Your task to perform on an android device: turn on location history Image 0: 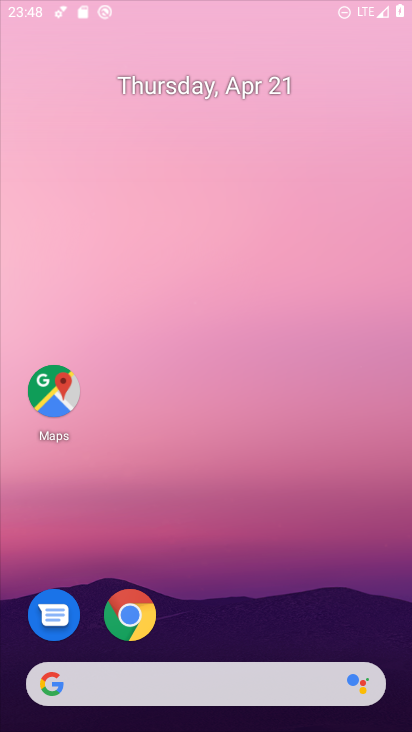
Step 0: click (251, 79)
Your task to perform on an android device: turn on location history Image 1: 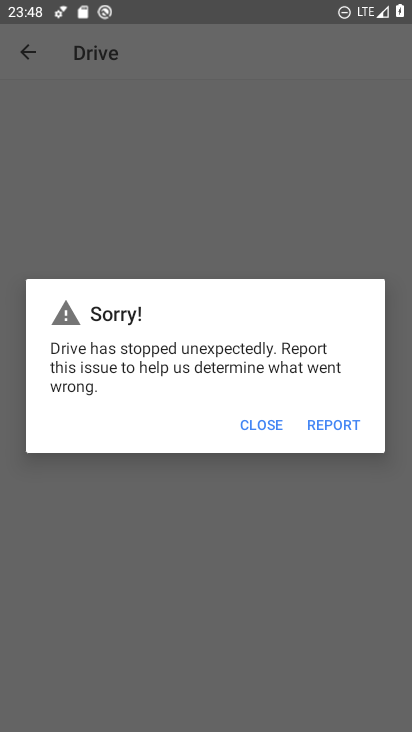
Step 1: press home button
Your task to perform on an android device: turn on location history Image 2: 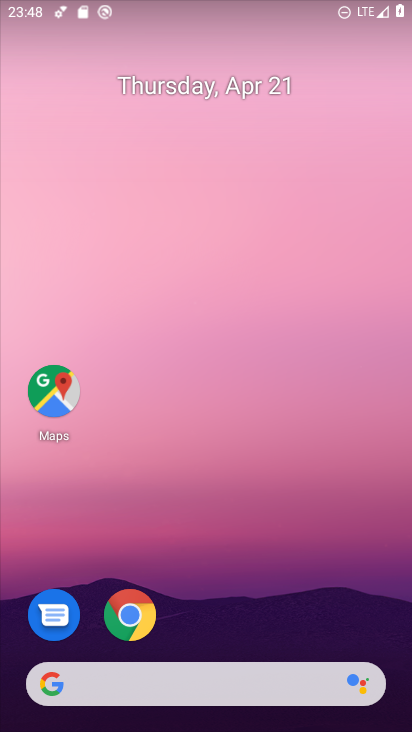
Step 2: drag from (213, 655) to (215, 82)
Your task to perform on an android device: turn on location history Image 3: 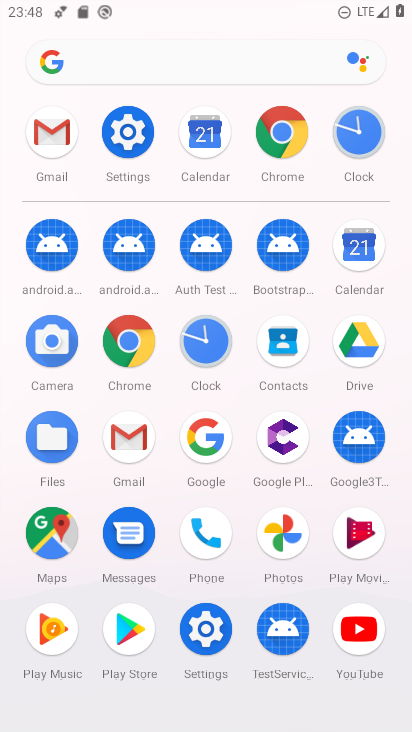
Step 3: click (203, 624)
Your task to perform on an android device: turn on location history Image 4: 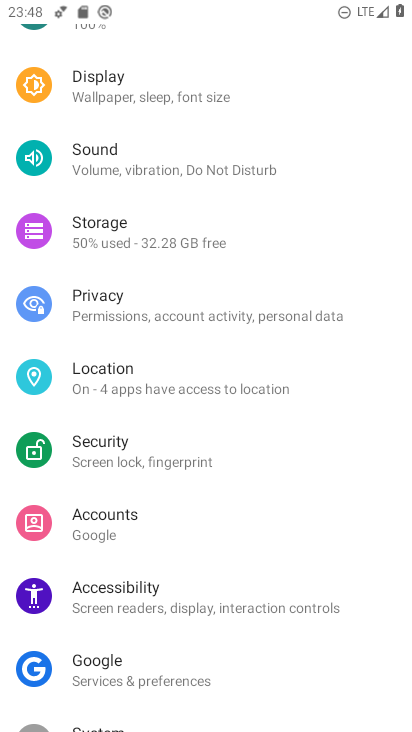
Step 4: click (150, 373)
Your task to perform on an android device: turn on location history Image 5: 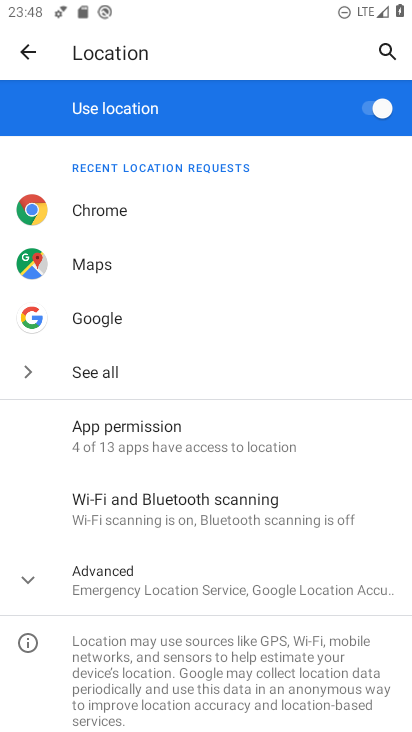
Step 5: click (29, 577)
Your task to perform on an android device: turn on location history Image 6: 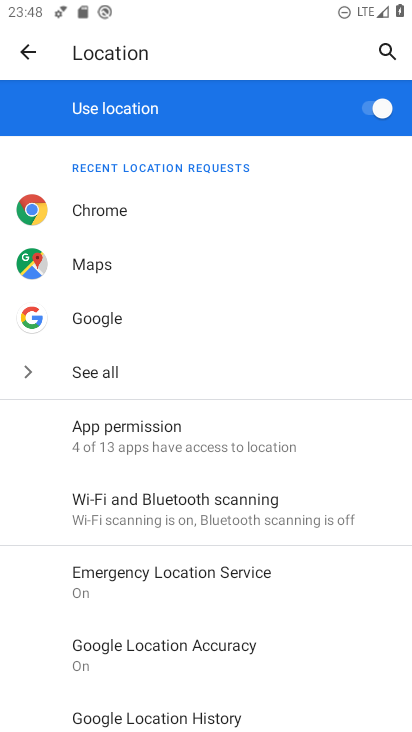
Step 6: click (184, 706)
Your task to perform on an android device: turn on location history Image 7: 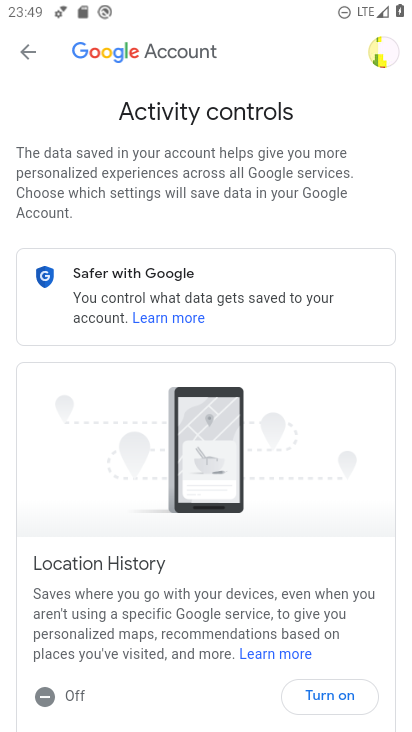
Step 7: drag from (219, 692) to (213, 348)
Your task to perform on an android device: turn on location history Image 8: 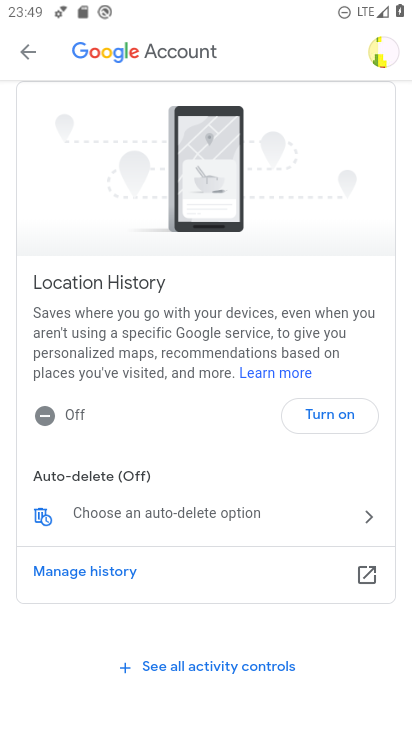
Step 8: click (333, 423)
Your task to perform on an android device: turn on location history Image 9: 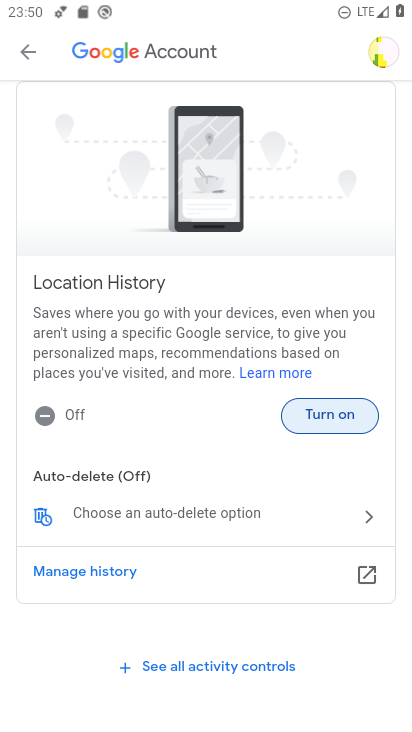
Step 9: click (336, 403)
Your task to perform on an android device: turn on location history Image 10: 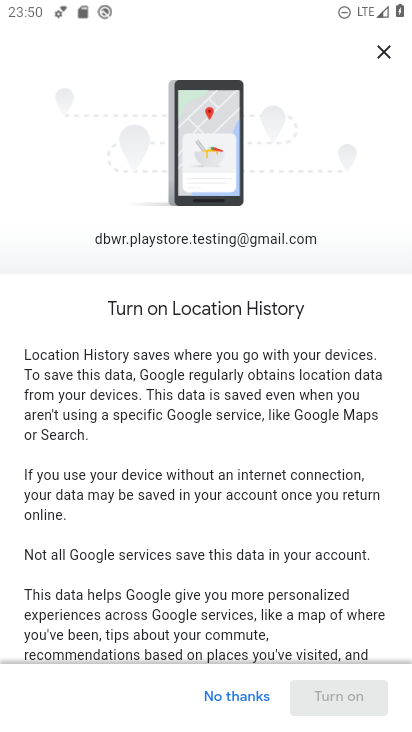
Step 10: drag from (289, 606) to (288, 281)
Your task to perform on an android device: turn on location history Image 11: 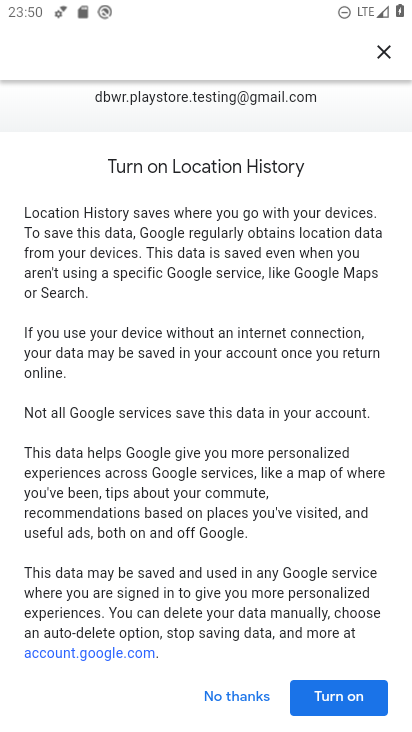
Step 11: click (337, 688)
Your task to perform on an android device: turn on location history Image 12: 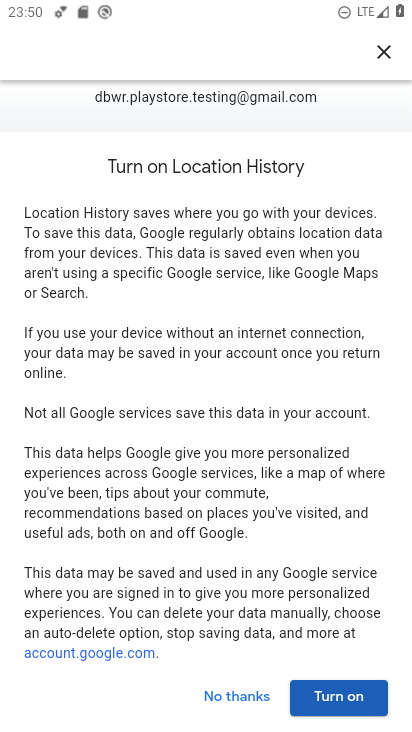
Step 12: click (332, 696)
Your task to perform on an android device: turn on location history Image 13: 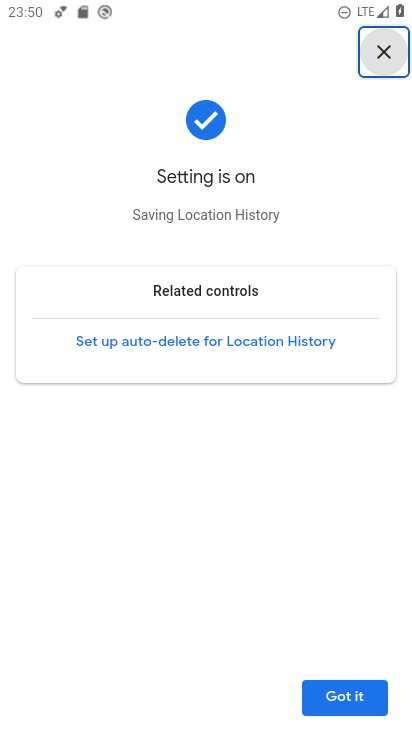
Step 13: click (351, 698)
Your task to perform on an android device: turn on location history Image 14: 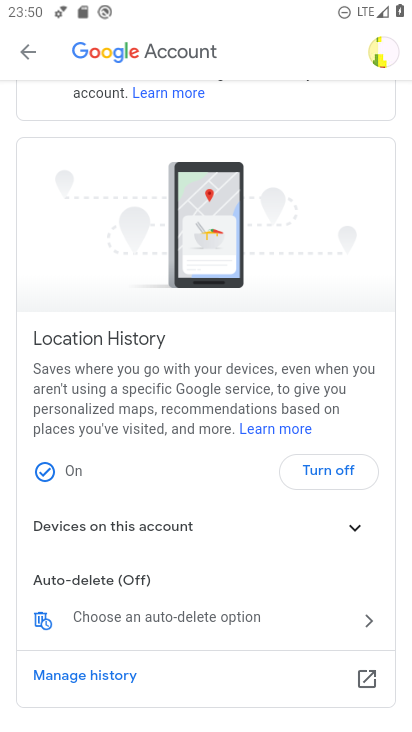
Step 14: task complete